Your task to perform on an android device: turn off javascript in the chrome app Image 0: 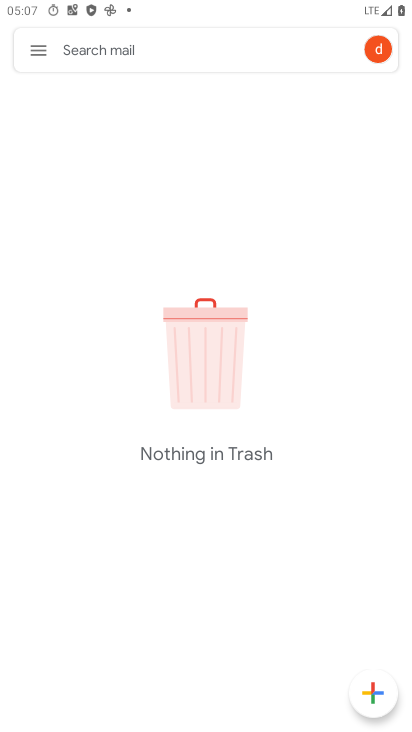
Step 0: press home button
Your task to perform on an android device: turn off javascript in the chrome app Image 1: 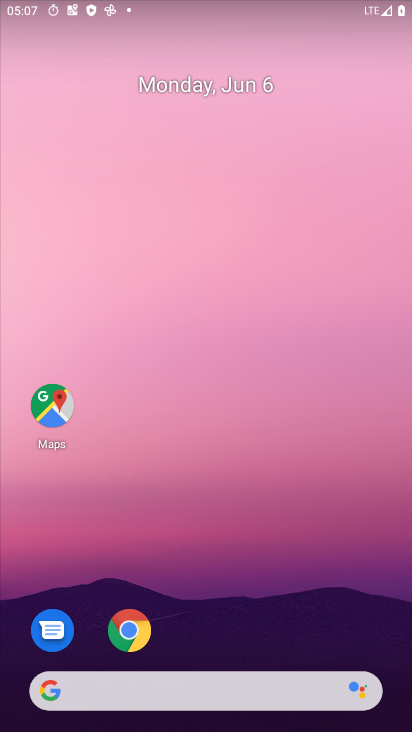
Step 1: drag from (242, 643) to (373, 93)
Your task to perform on an android device: turn off javascript in the chrome app Image 2: 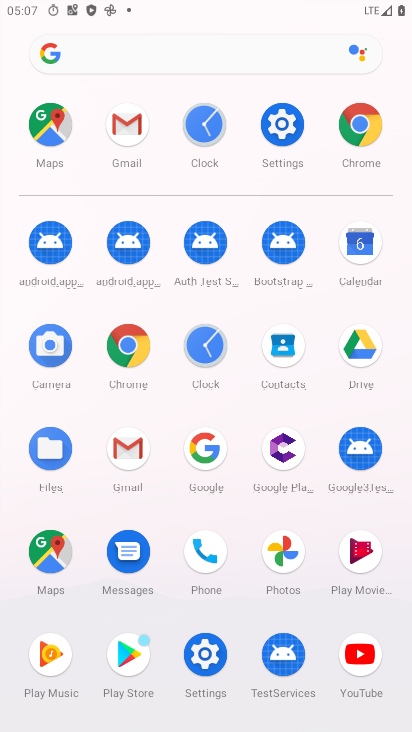
Step 2: click (123, 347)
Your task to perform on an android device: turn off javascript in the chrome app Image 3: 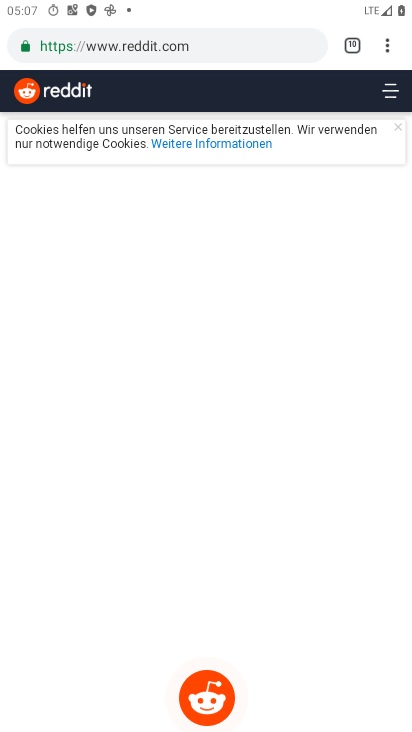
Step 3: drag from (385, 47) to (222, 544)
Your task to perform on an android device: turn off javascript in the chrome app Image 4: 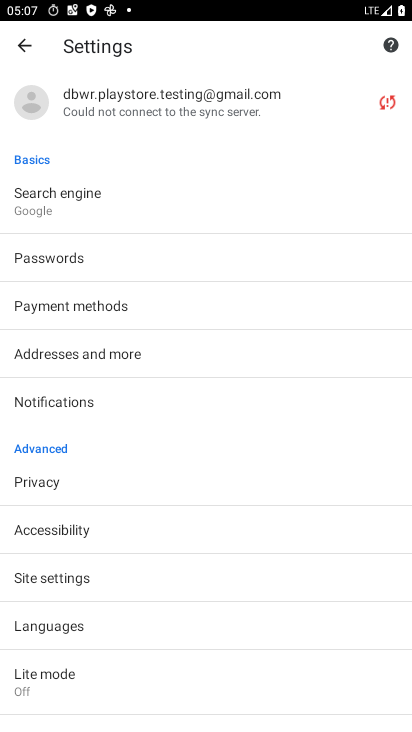
Step 4: drag from (205, 654) to (246, 322)
Your task to perform on an android device: turn off javascript in the chrome app Image 5: 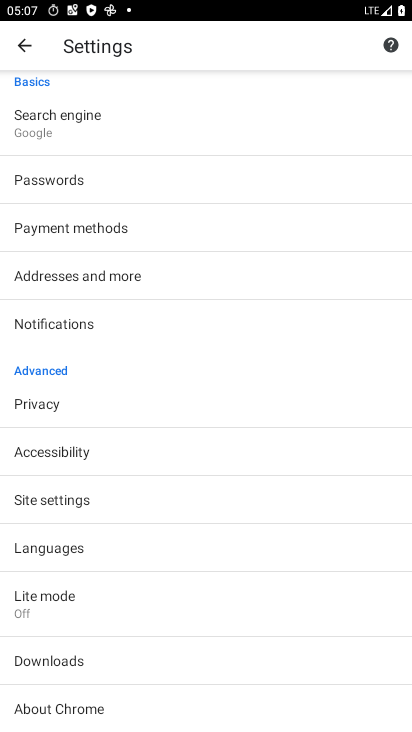
Step 5: click (65, 495)
Your task to perform on an android device: turn off javascript in the chrome app Image 6: 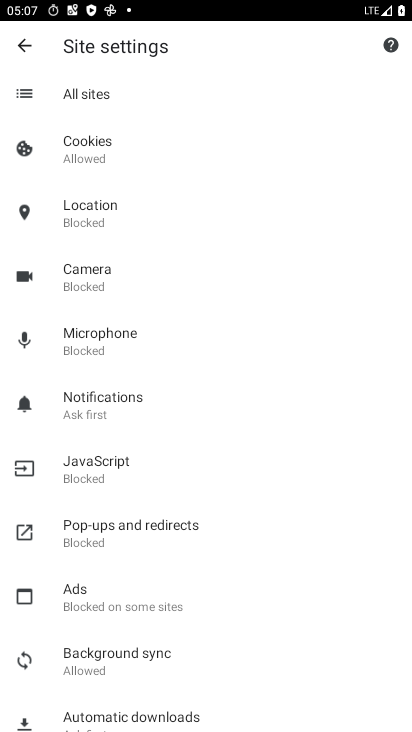
Step 6: click (104, 461)
Your task to perform on an android device: turn off javascript in the chrome app Image 7: 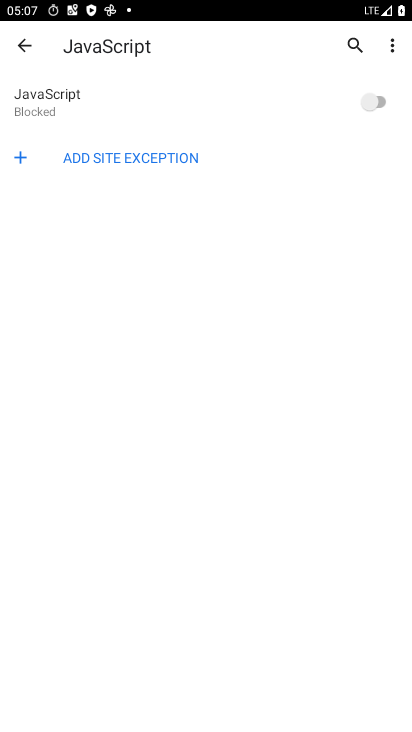
Step 7: task complete